Your task to perform on an android device: Open Google Maps Image 0: 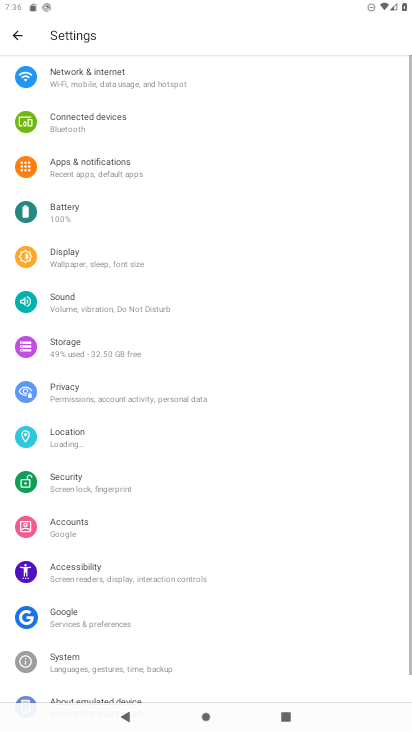
Step 0: press home button
Your task to perform on an android device: Open Google Maps Image 1: 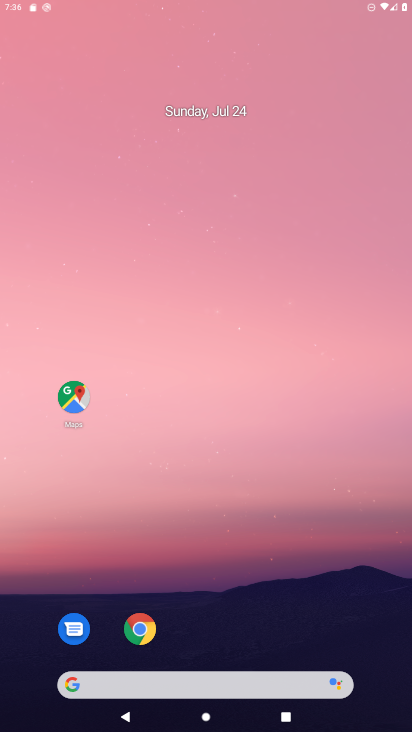
Step 1: drag from (349, 666) to (199, 40)
Your task to perform on an android device: Open Google Maps Image 2: 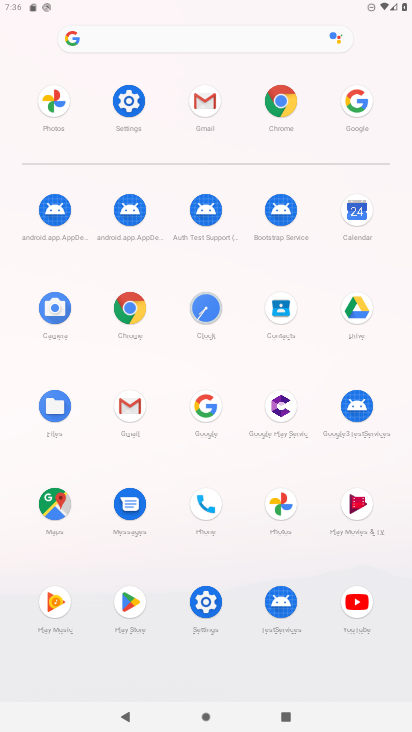
Step 2: click (64, 505)
Your task to perform on an android device: Open Google Maps Image 3: 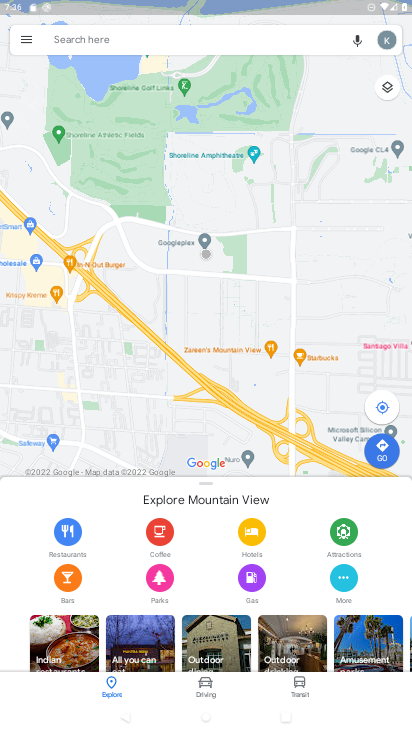
Step 3: task complete